Your task to perform on an android device: change alarm snooze length Image 0: 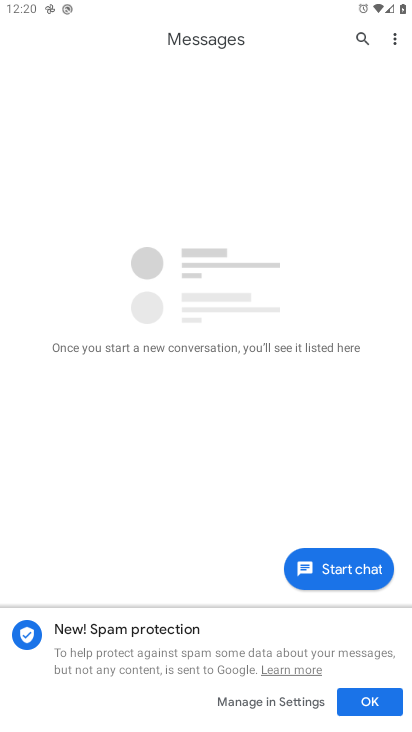
Step 0: press home button
Your task to perform on an android device: change alarm snooze length Image 1: 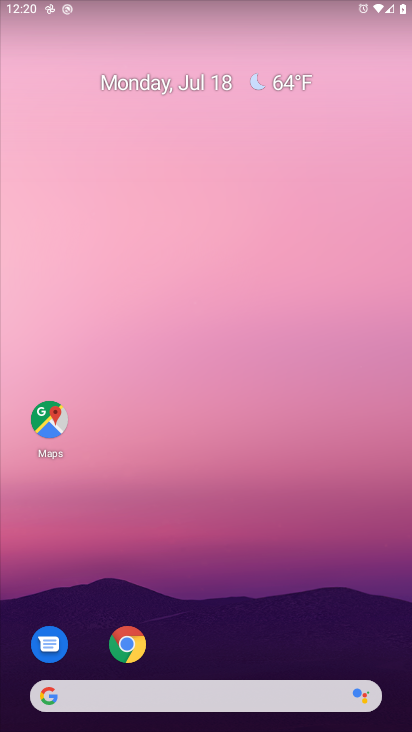
Step 1: drag from (292, 577) to (325, 149)
Your task to perform on an android device: change alarm snooze length Image 2: 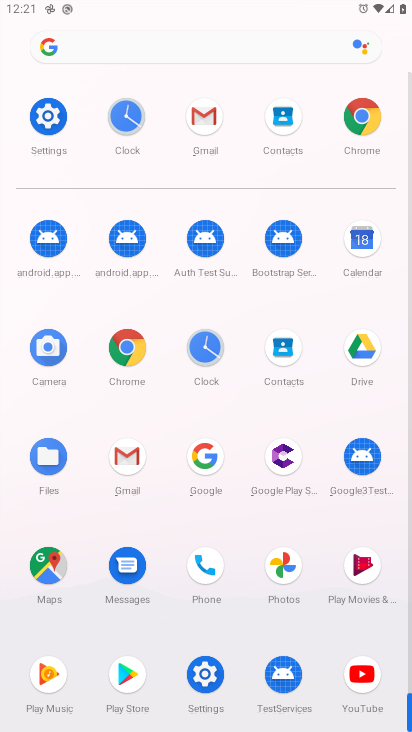
Step 2: click (120, 107)
Your task to perform on an android device: change alarm snooze length Image 3: 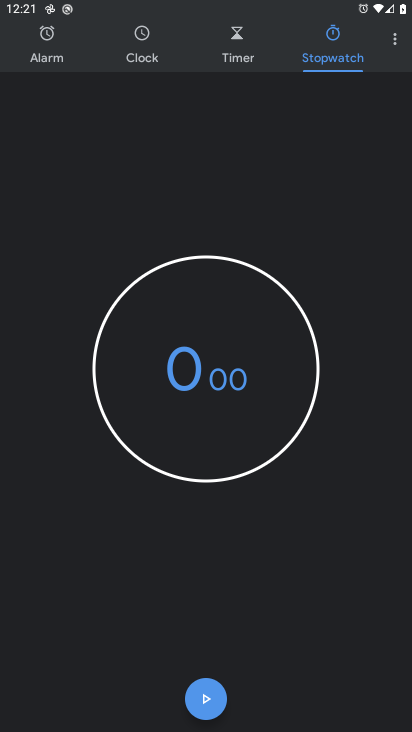
Step 3: click (392, 40)
Your task to perform on an android device: change alarm snooze length Image 4: 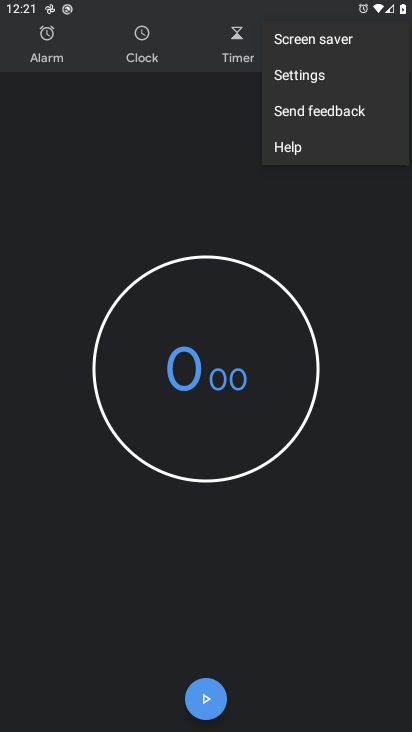
Step 4: click (288, 71)
Your task to perform on an android device: change alarm snooze length Image 5: 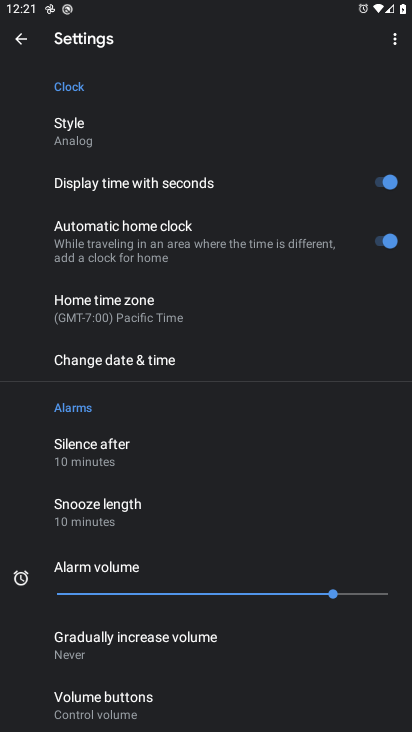
Step 5: drag from (255, 681) to (234, 279)
Your task to perform on an android device: change alarm snooze length Image 6: 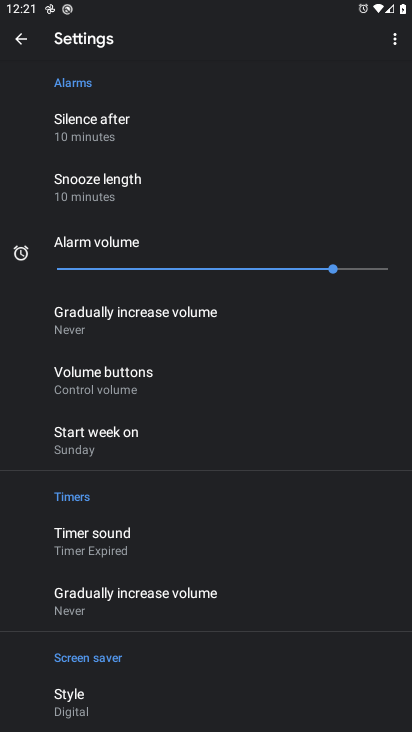
Step 6: drag from (266, 503) to (293, 200)
Your task to perform on an android device: change alarm snooze length Image 7: 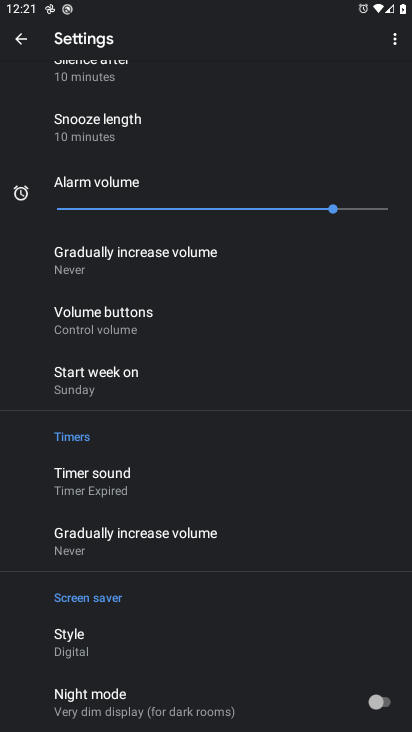
Step 7: click (124, 134)
Your task to perform on an android device: change alarm snooze length Image 8: 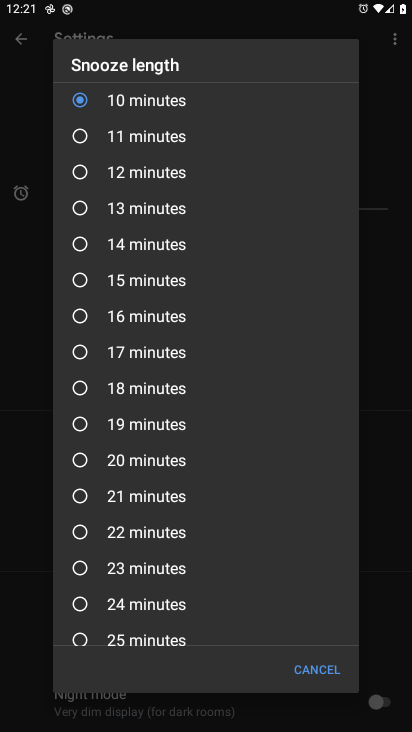
Step 8: click (77, 279)
Your task to perform on an android device: change alarm snooze length Image 9: 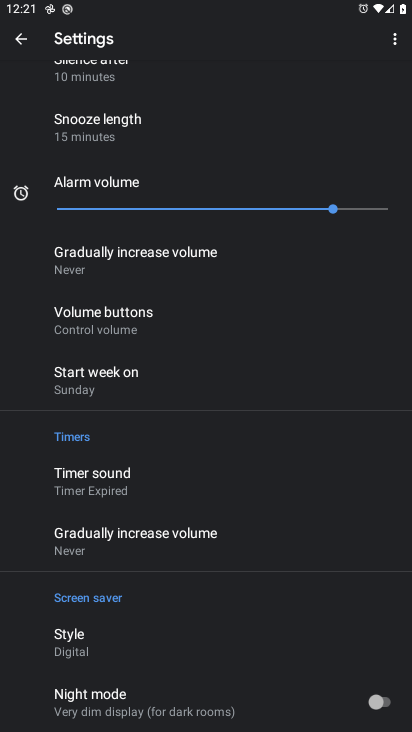
Step 9: task complete